Your task to perform on an android device: Open sound settings Image 0: 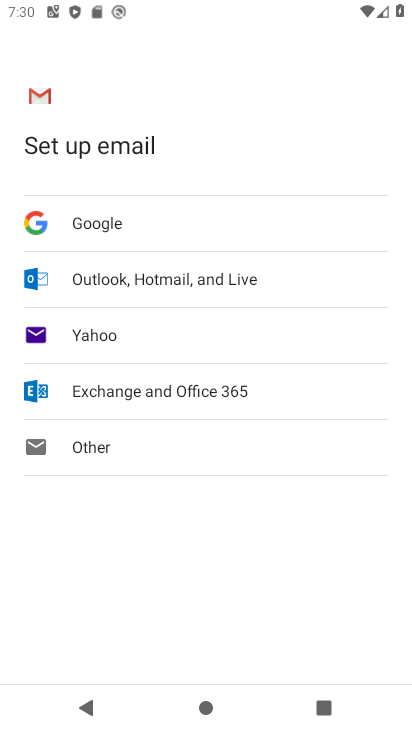
Step 0: press home button
Your task to perform on an android device: Open sound settings Image 1: 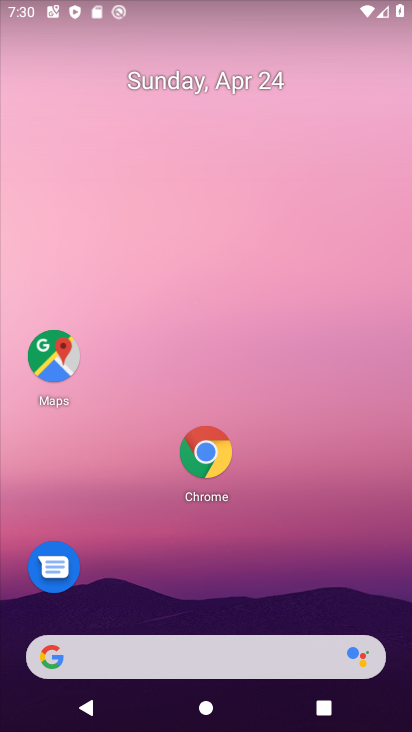
Step 1: drag from (385, 587) to (389, 160)
Your task to perform on an android device: Open sound settings Image 2: 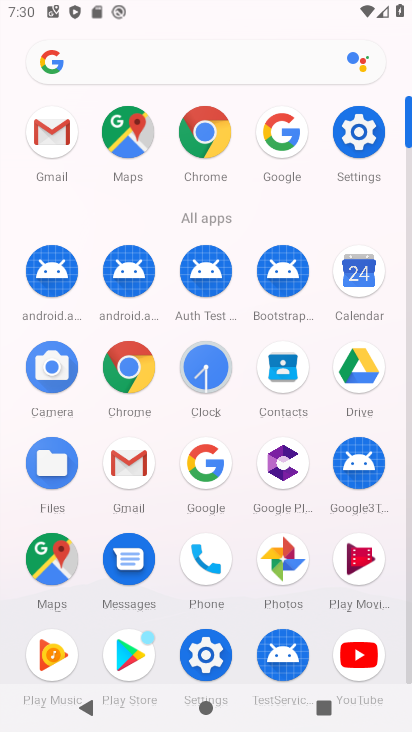
Step 2: click (370, 123)
Your task to perform on an android device: Open sound settings Image 3: 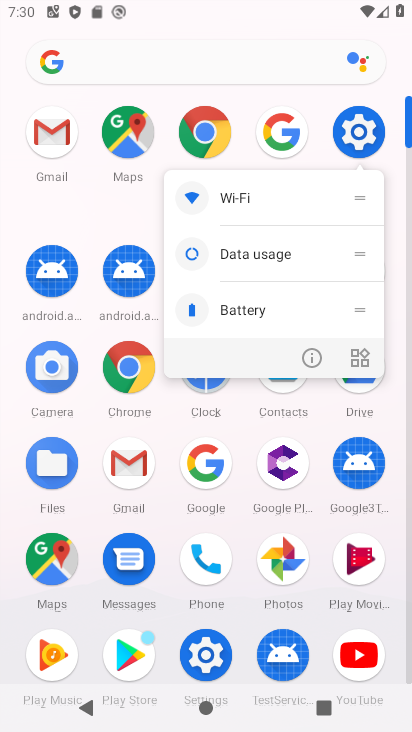
Step 3: click (370, 123)
Your task to perform on an android device: Open sound settings Image 4: 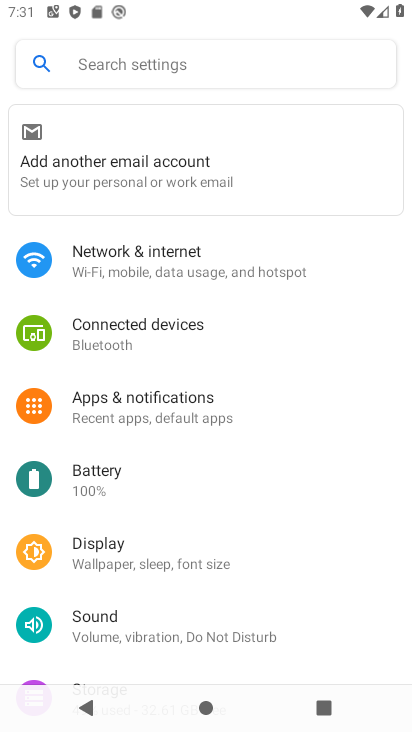
Step 4: drag from (219, 621) to (196, 178)
Your task to perform on an android device: Open sound settings Image 5: 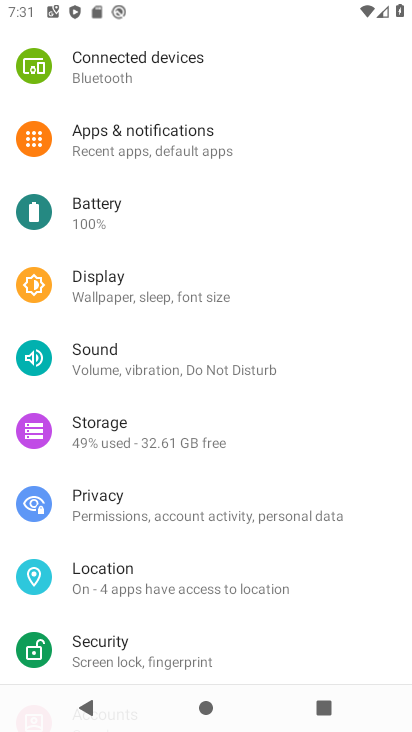
Step 5: click (120, 384)
Your task to perform on an android device: Open sound settings Image 6: 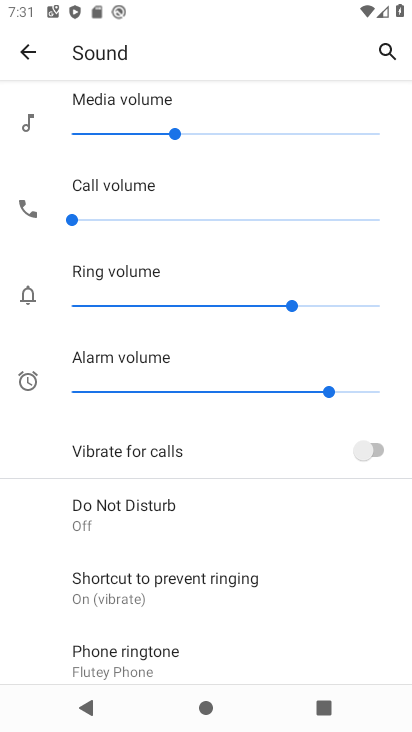
Step 6: task complete